Your task to perform on an android device: Show me popular videos on Youtube Image 0: 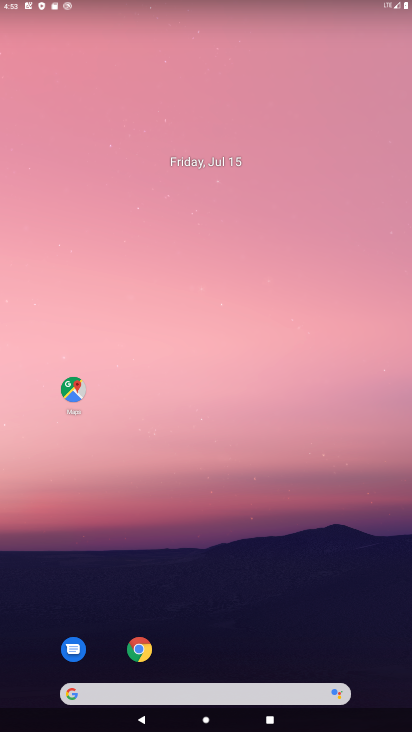
Step 0: drag from (340, 620) to (270, 115)
Your task to perform on an android device: Show me popular videos on Youtube Image 1: 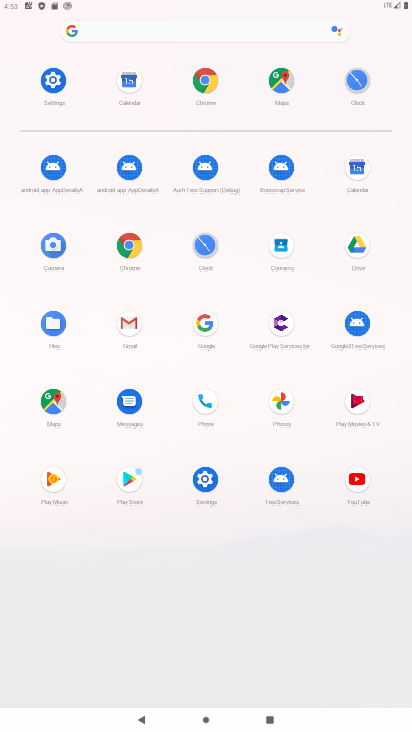
Step 1: click (359, 469)
Your task to perform on an android device: Show me popular videos on Youtube Image 2: 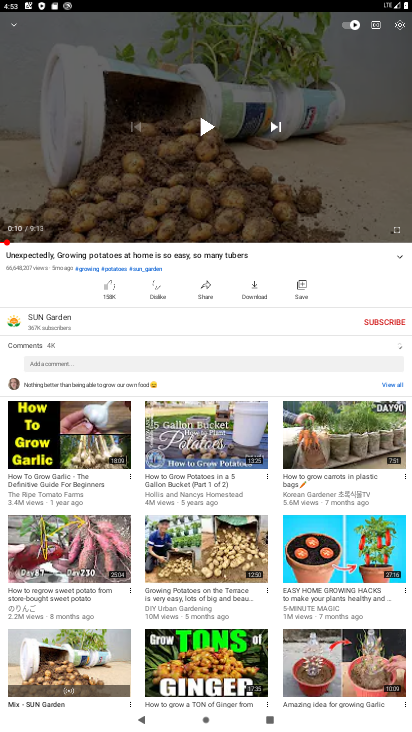
Step 2: press back button
Your task to perform on an android device: Show me popular videos on Youtube Image 3: 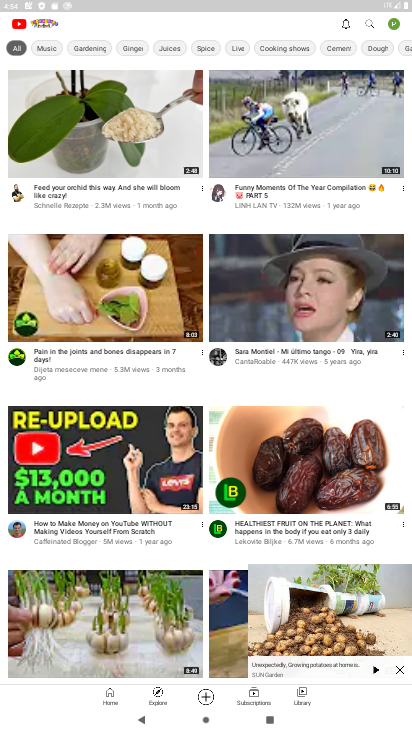
Step 3: drag from (232, 161) to (258, 627)
Your task to perform on an android device: Show me popular videos on Youtube Image 4: 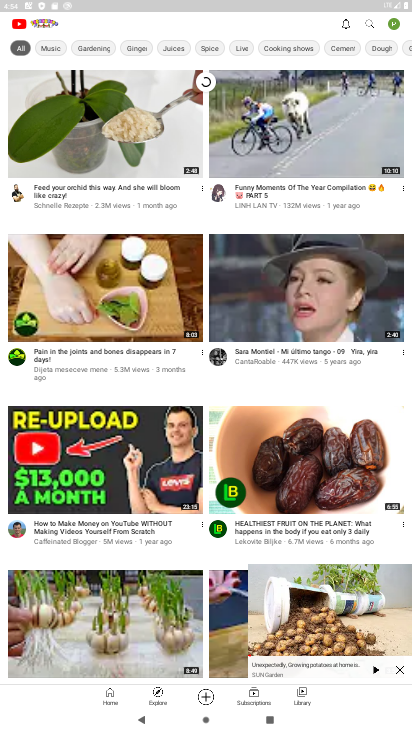
Step 4: click (114, 693)
Your task to perform on an android device: Show me popular videos on Youtube Image 5: 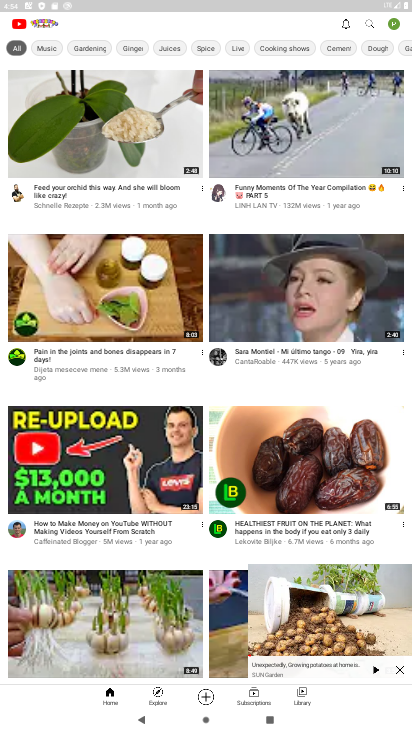
Step 5: click (157, 697)
Your task to perform on an android device: Show me popular videos on Youtube Image 6: 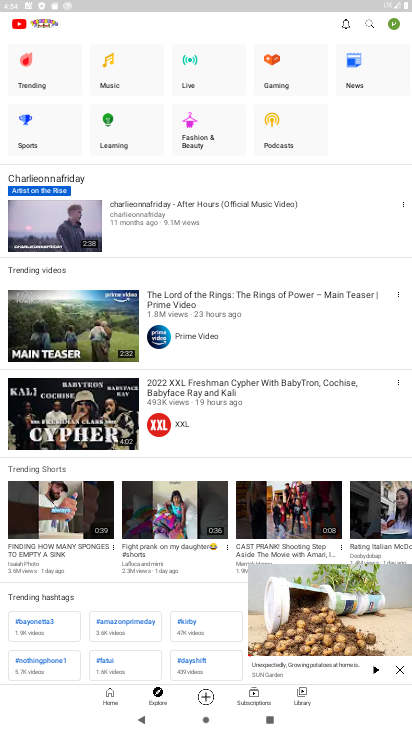
Step 6: task complete